Your task to perform on an android device: toggle sleep mode Image 0: 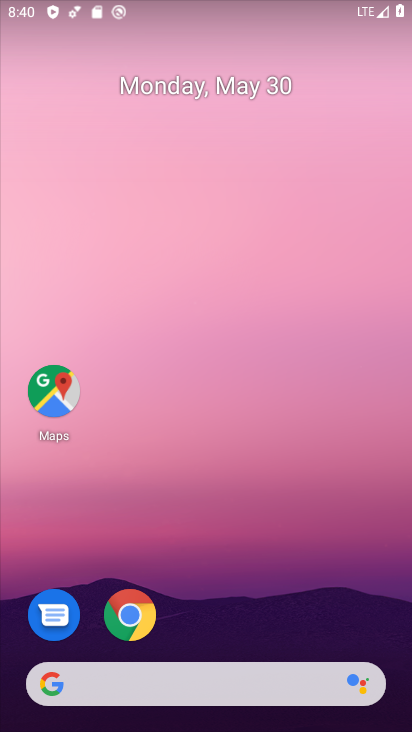
Step 0: drag from (243, 26) to (201, 652)
Your task to perform on an android device: toggle sleep mode Image 1: 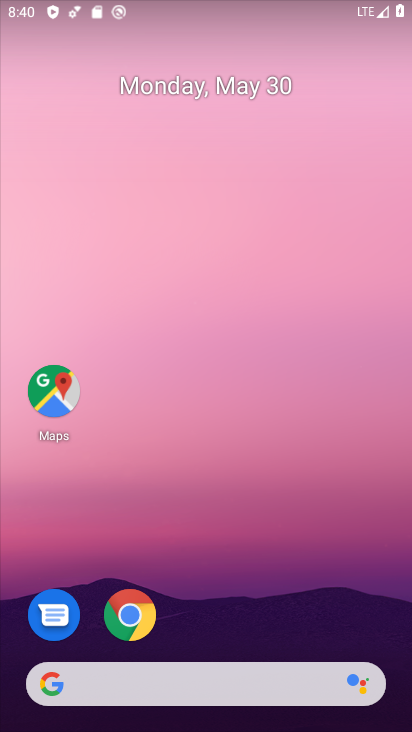
Step 1: drag from (196, 15) to (178, 707)
Your task to perform on an android device: toggle sleep mode Image 2: 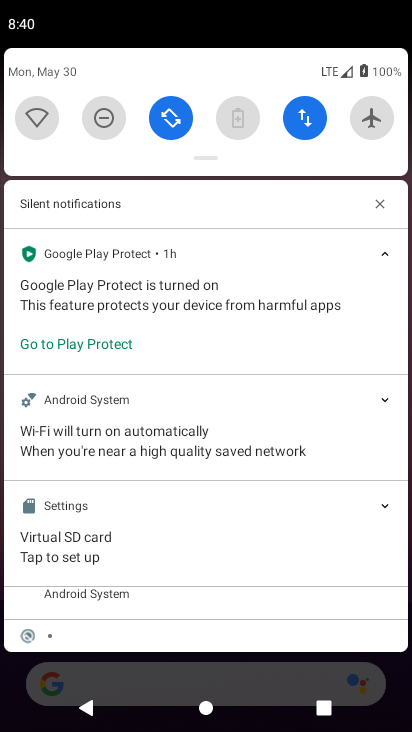
Step 2: drag from (208, 161) to (179, 678)
Your task to perform on an android device: toggle sleep mode Image 3: 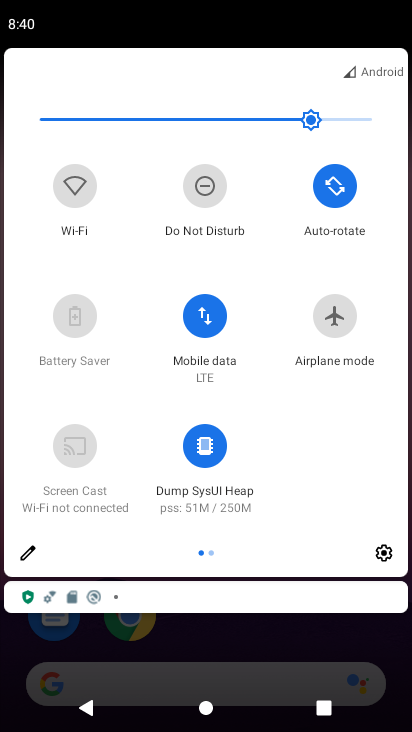
Step 3: click (24, 545)
Your task to perform on an android device: toggle sleep mode Image 4: 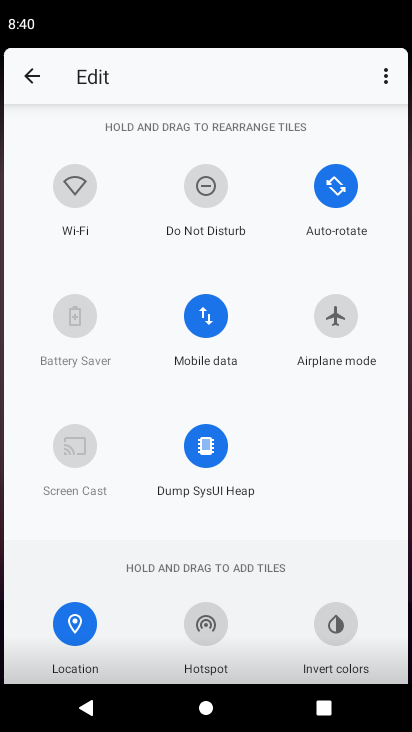
Step 4: task complete